Your task to perform on an android device: Set the phone to "Do not disturb". Image 0: 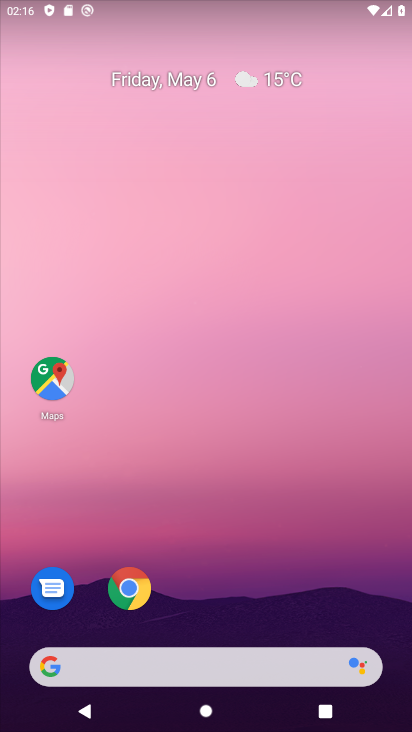
Step 0: drag from (211, 630) to (98, 54)
Your task to perform on an android device: Set the phone to "Do not disturb". Image 1: 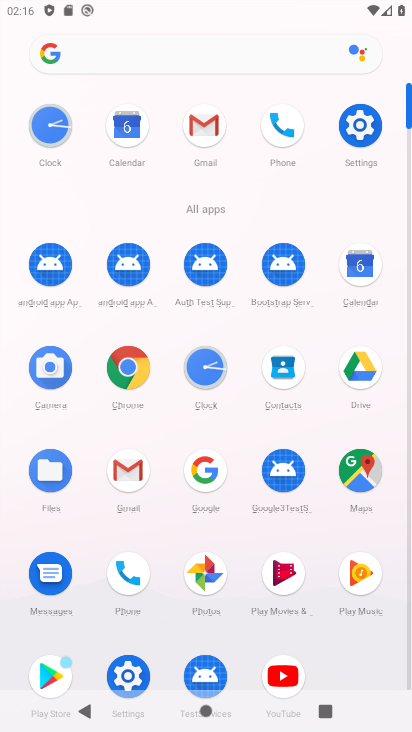
Step 1: drag from (261, 0) to (204, 487)
Your task to perform on an android device: Set the phone to "Do not disturb". Image 2: 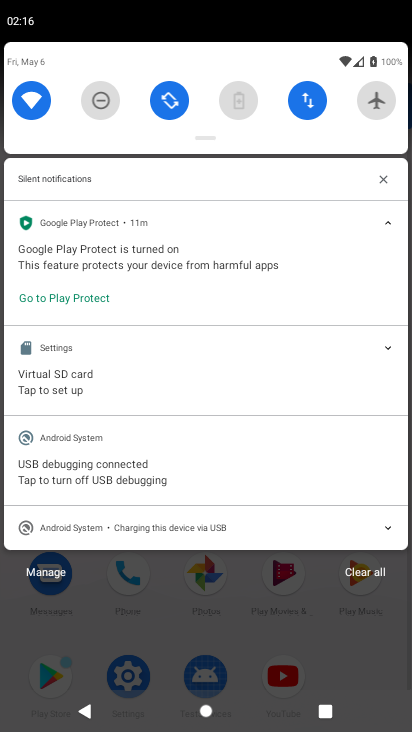
Step 2: click (94, 95)
Your task to perform on an android device: Set the phone to "Do not disturb". Image 3: 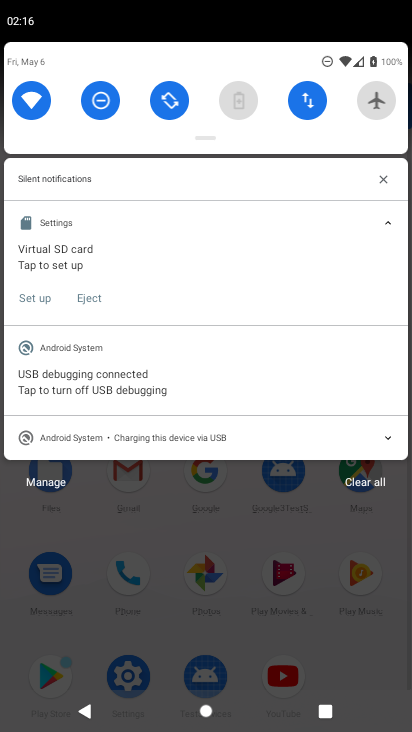
Step 3: task complete